Your task to perform on an android device: search for starred emails in the gmail app Image 0: 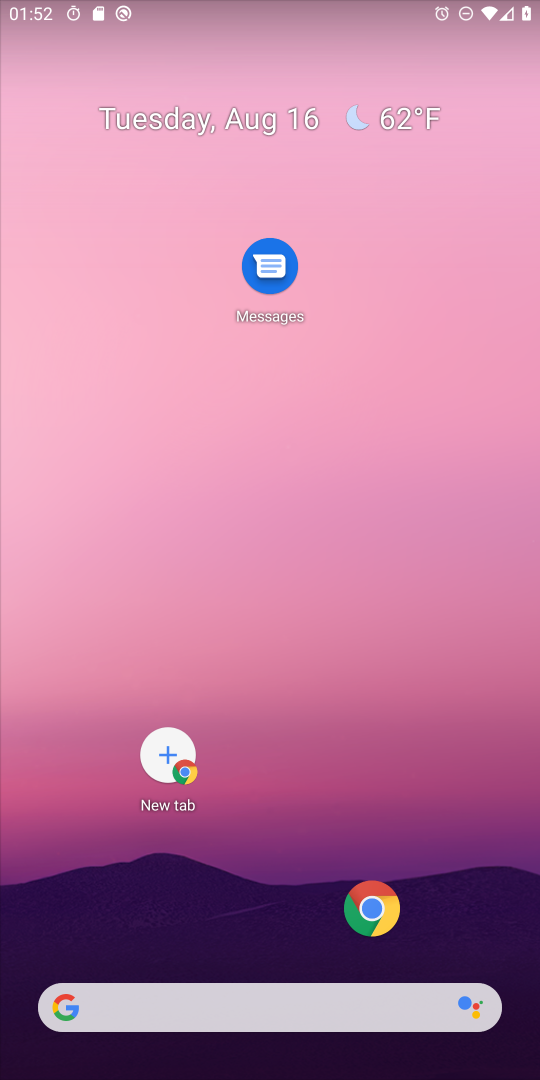
Step 0: drag from (255, 912) to (243, 9)
Your task to perform on an android device: search for starred emails in the gmail app Image 1: 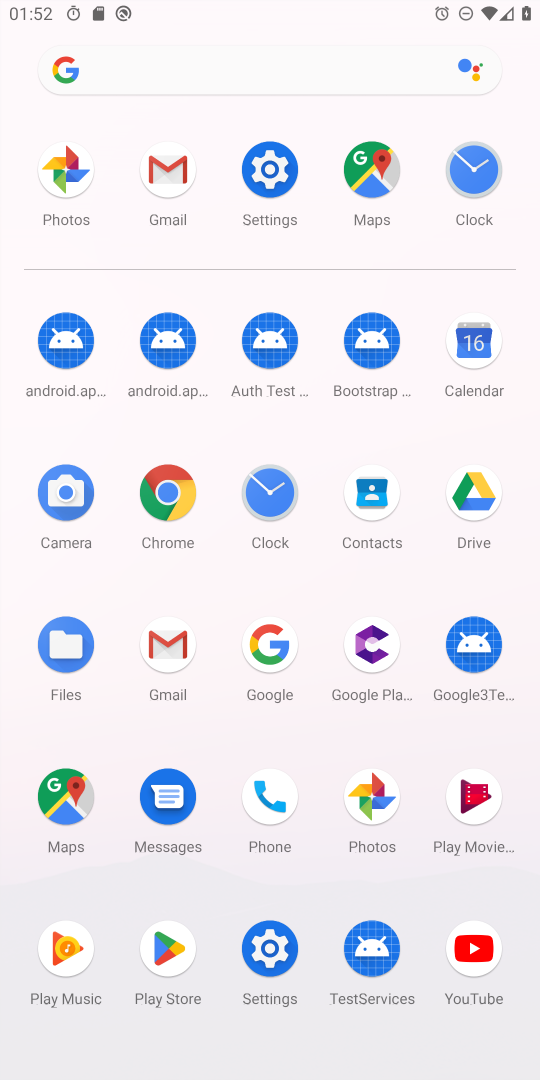
Step 1: click (200, 159)
Your task to perform on an android device: search for starred emails in the gmail app Image 2: 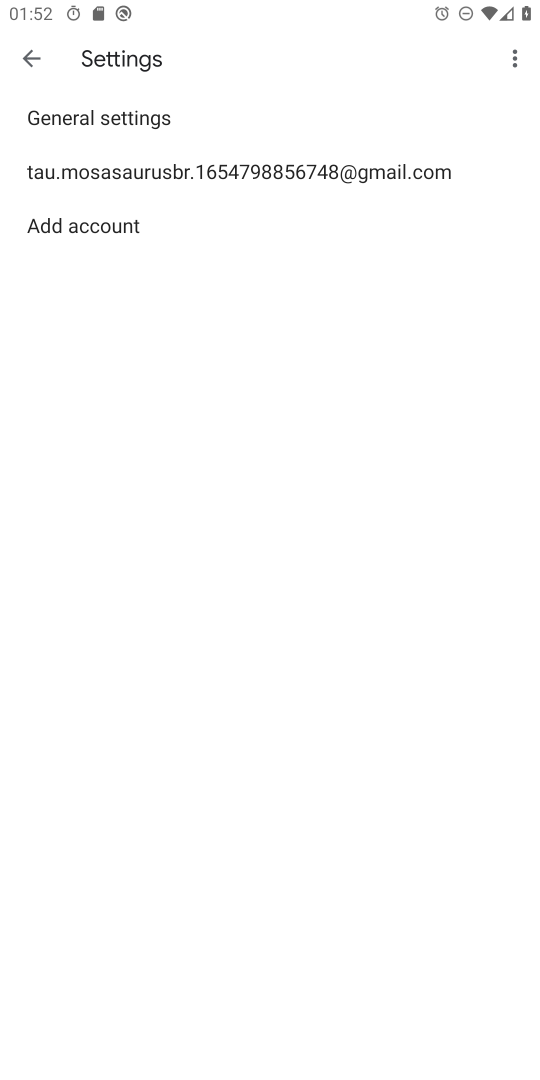
Step 2: click (25, 52)
Your task to perform on an android device: search for starred emails in the gmail app Image 3: 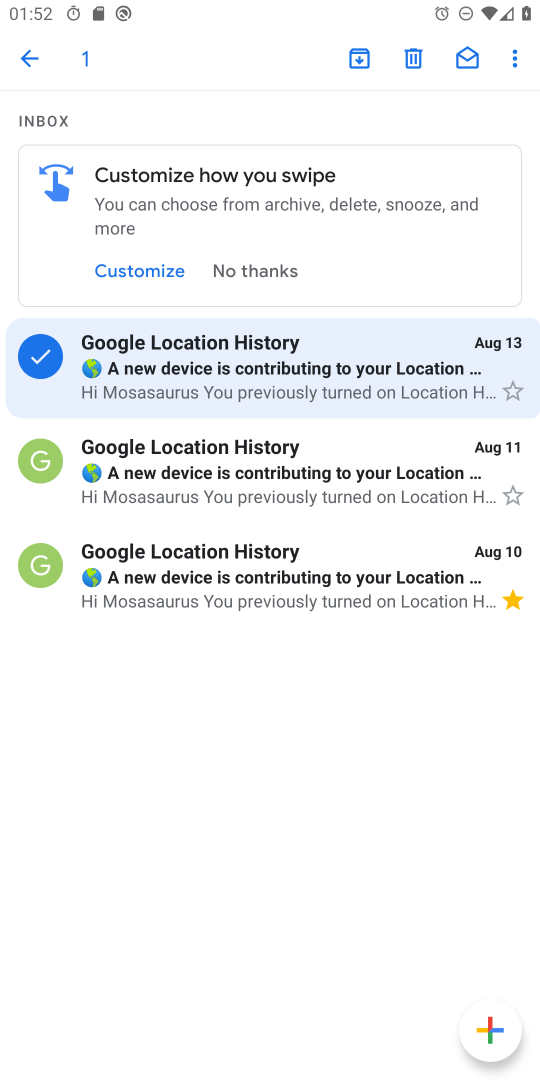
Step 3: click (25, 54)
Your task to perform on an android device: search for starred emails in the gmail app Image 4: 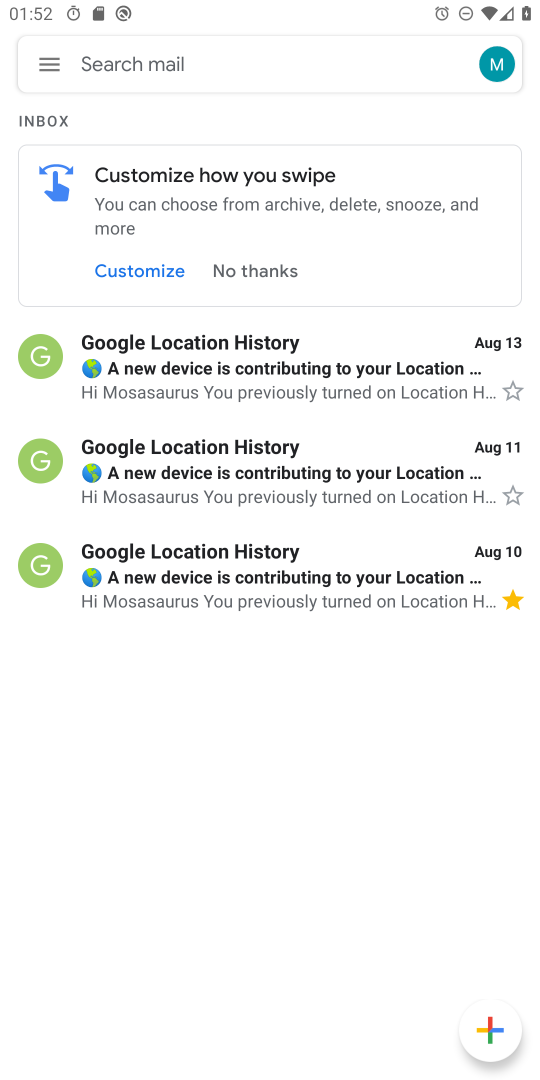
Step 4: click (25, 54)
Your task to perform on an android device: search for starred emails in the gmail app Image 5: 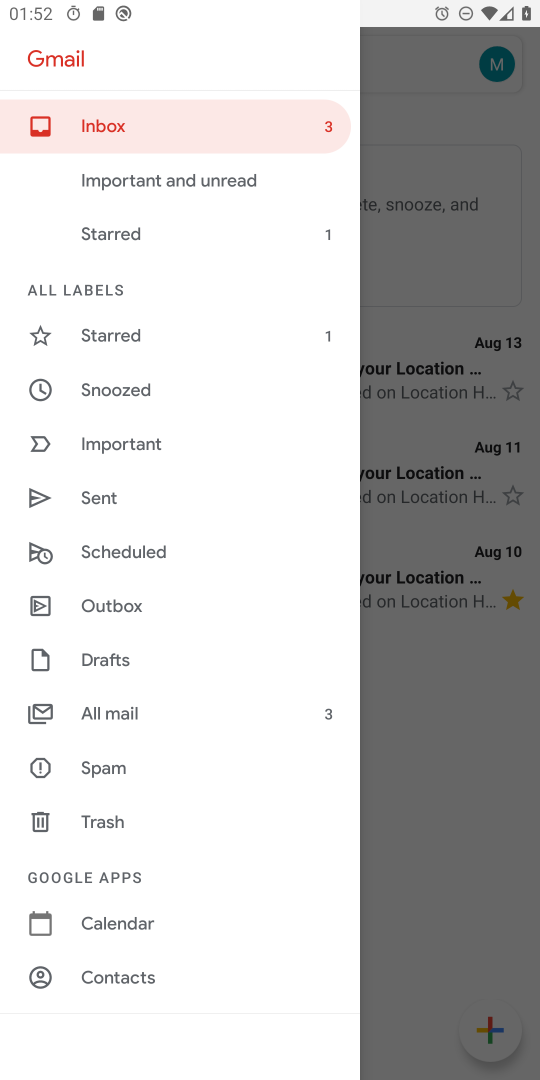
Step 5: click (94, 348)
Your task to perform on an android device: search for starred emails in the gmail app Image 6: 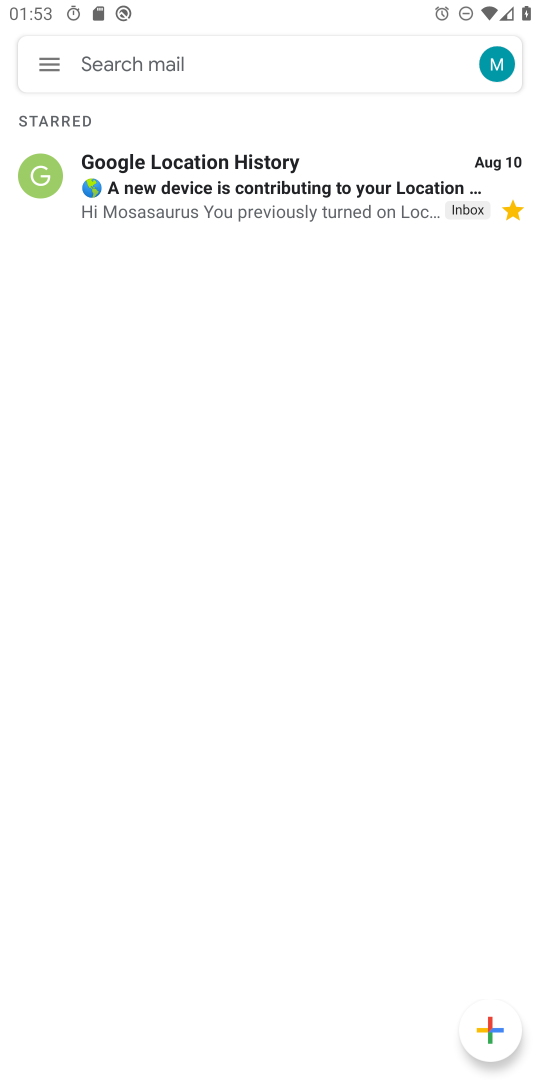
Step 6: task complete